Your task to perform on an android device: change the clock style Image 0: 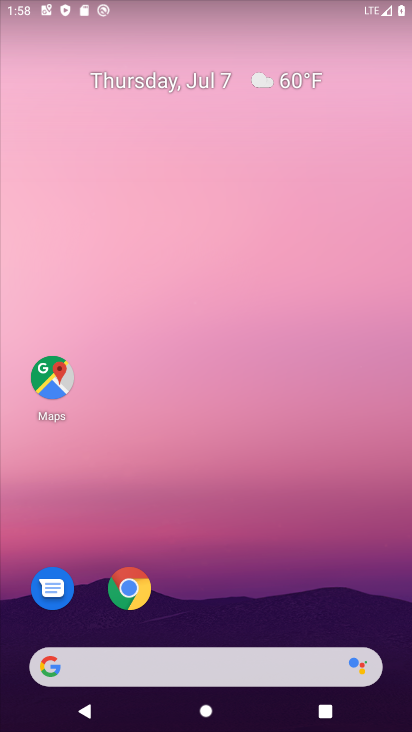
Step 0: drag from (269, 598) to (274, 201)
Your task to perform on an android device: change the clock style Image 1: 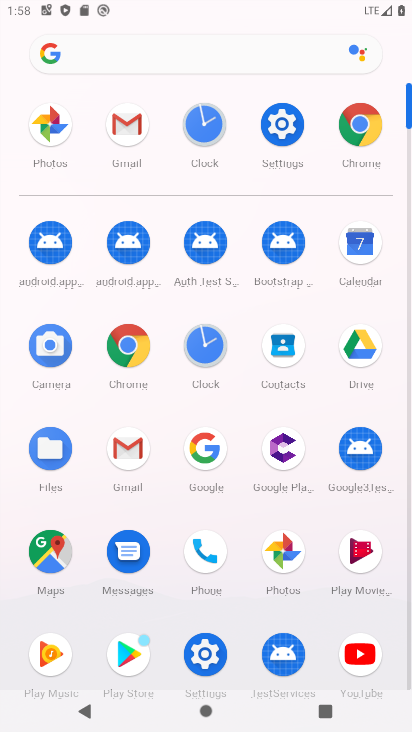
Step 1: click (211, 348)
Your task to perform on an android device: change the clock style Image 2: 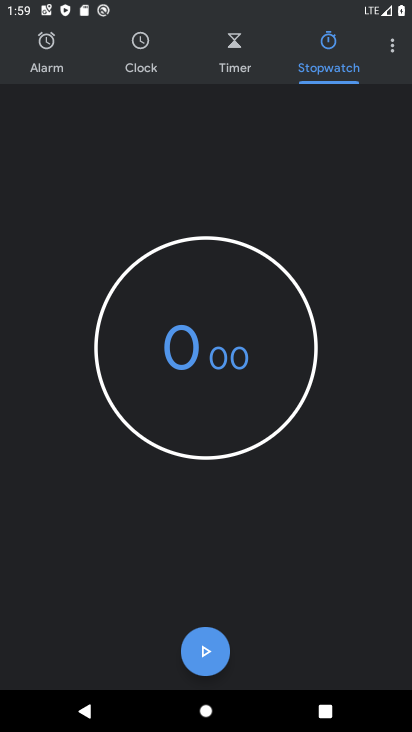
Step 2: click (395, 49)
Your task to perform on an android device: change the clock style Image 3: 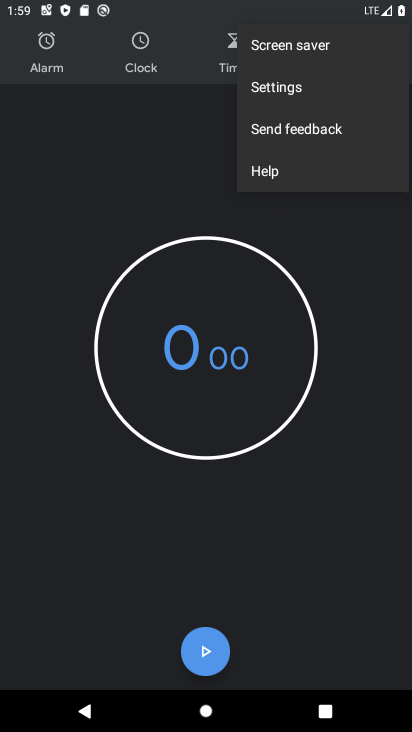
Step 3: click (279, 86)
Your task to perform on an android device: change the clock style Image 4: 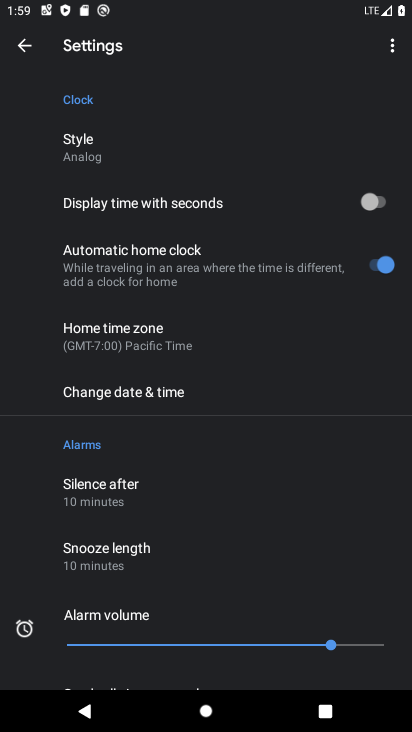
Step 4: click (104, 162)
Your task to perform on an android device: change the clock style Image 5: 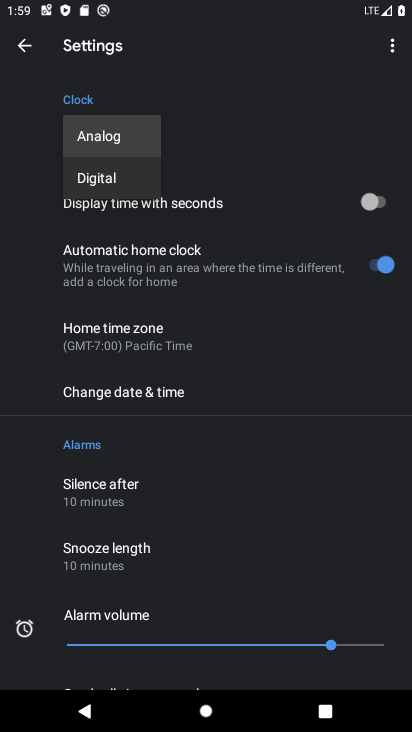
Step 5: click (113, 182)
Your task to perform on an android device: change the clock style Image 6: 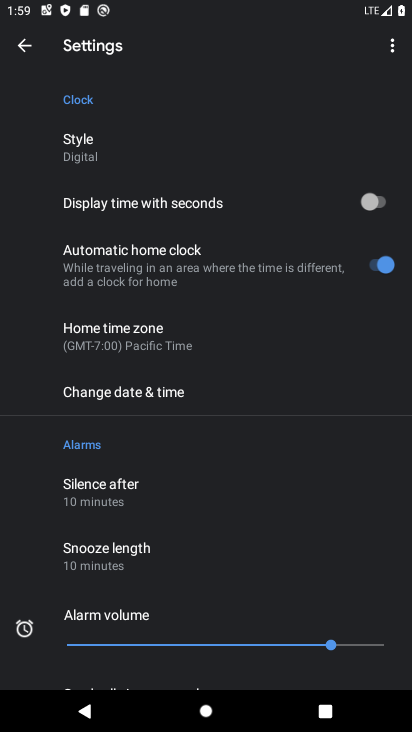
Step 6: task complete